Your task to perform on an android device: Open display settings Image 0: 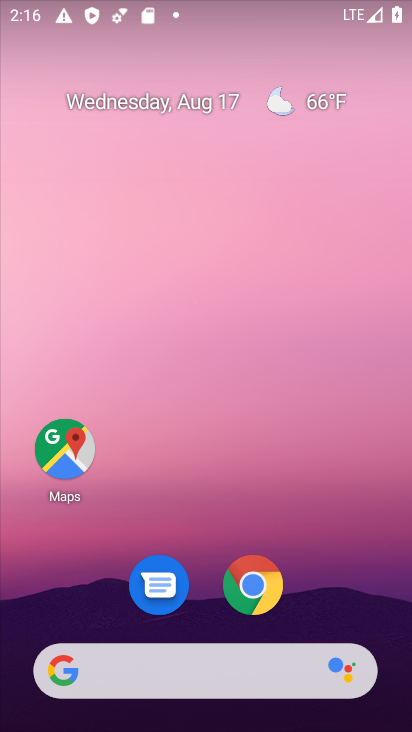
Step 0: drag from (201, 472) to (210, 0)
Your task to perform on an android device: Open display settings Image 1: 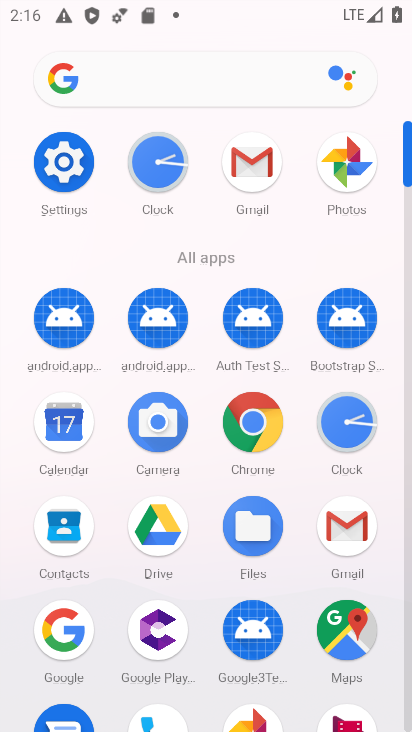
Step 1: click (61, 153)
Your task to perform on an android device: Open display settings Image 2: 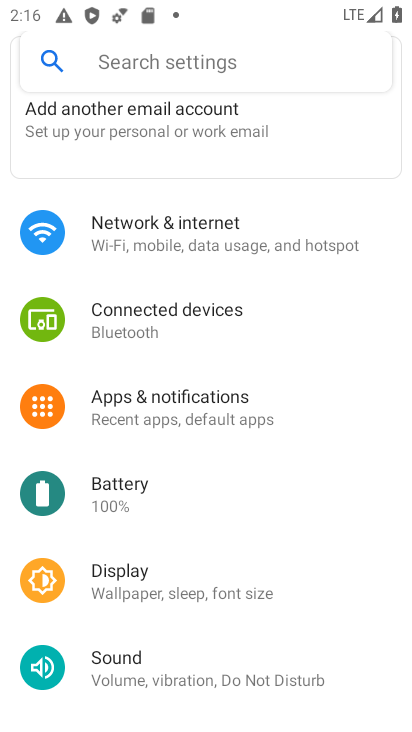
Step 2: click (157, 587)
Your task to perform on an android device: Open display settings Image 3: 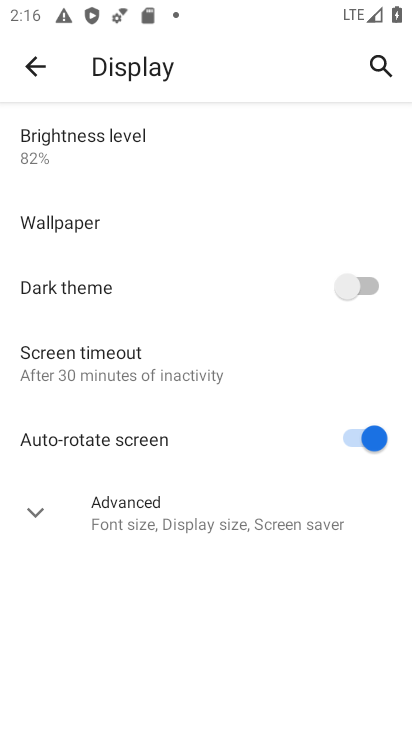
Step 3: task complete